Your task to perform on an android device: set the stopwatch Image 0: 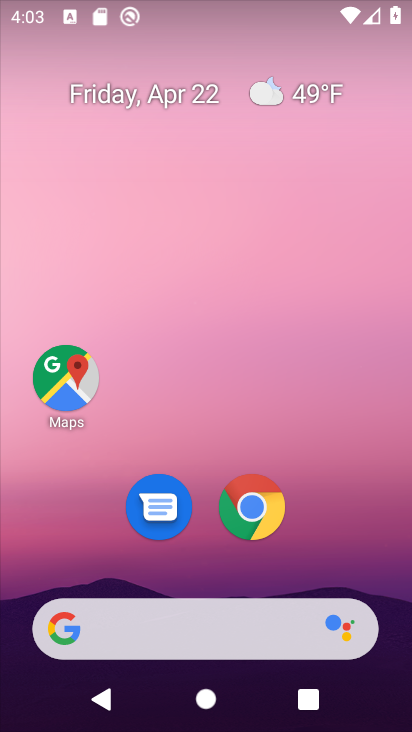
Step 0: drag from (384, 601) to (258, 4)
Your task to perform on an android device: set the stopwatch Image 1: 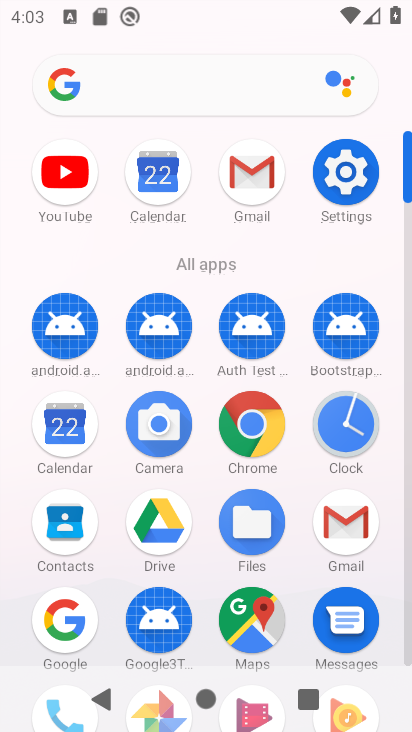
Step 1: click (408, 645)
Your task to perform on an android device: set the stopwatch Image 2: 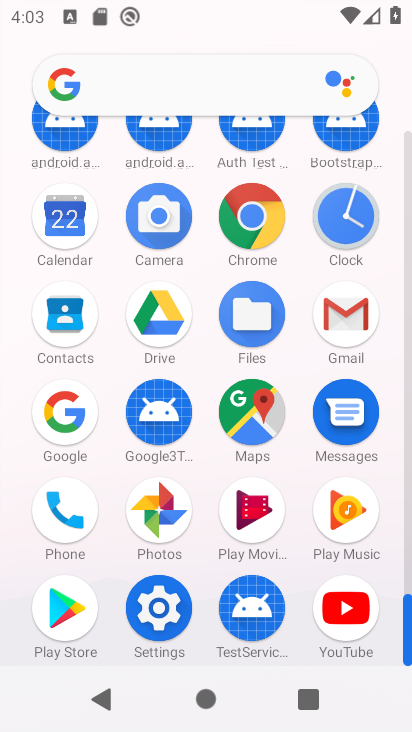
Step 2: click (344, 219)
Your task to perform on an android device: set the stopwatch Image 3: 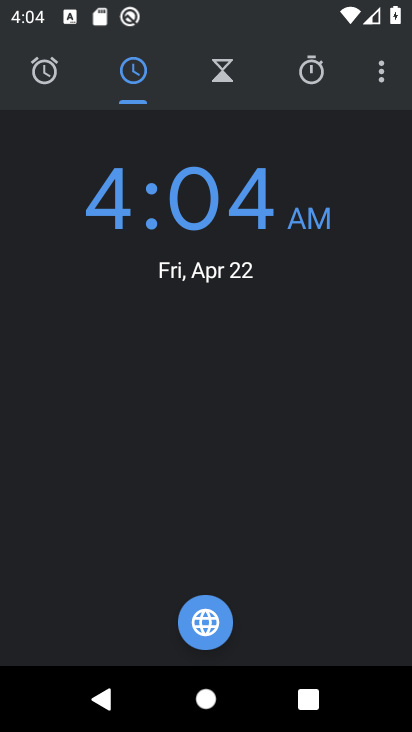
Step 3: click (315, 77)
Your task to perform on an android device: set the stopwatch Image 4: 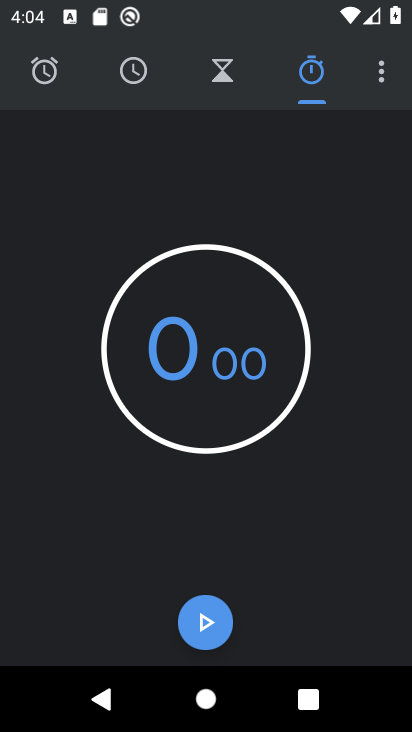
Step 4: task complete